Your task to perform on an android device: refresh tabs in the chrome app Image 0: 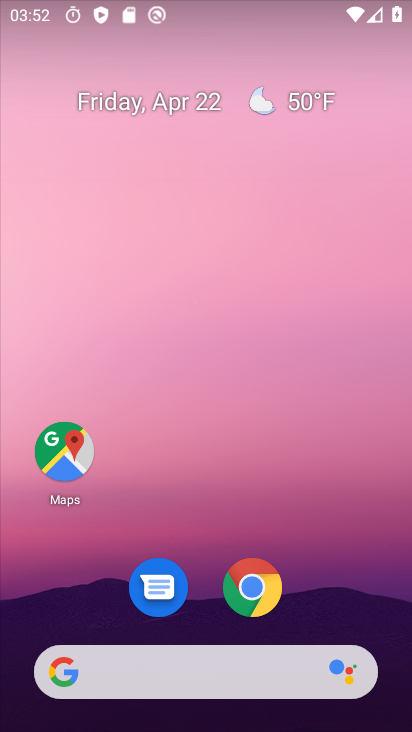
Step 0: click (259, 593)
Your task to perform on an android device: refresh tabs in the chrome app Image 1: 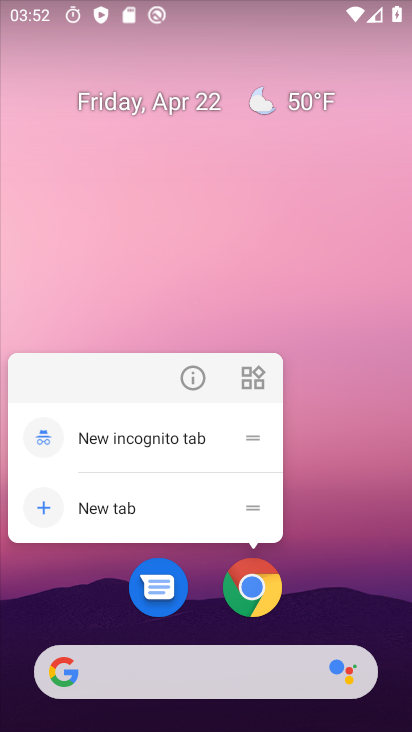
Step 1: click (253, 590)
Your task to perform on an android device: refresh tabs in the chrome app Image 2: 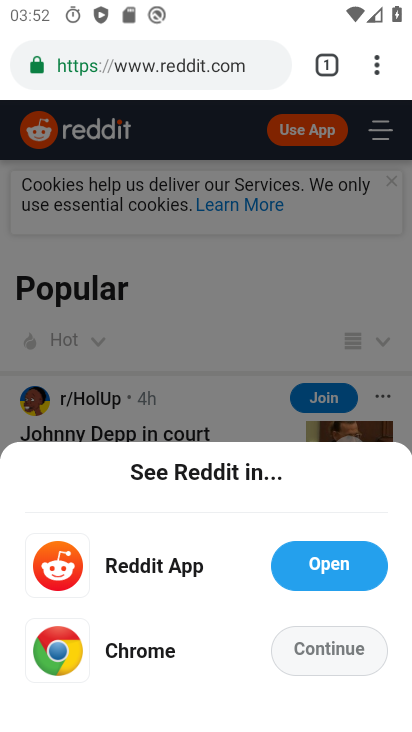
Step 2: click (378, 68)
Your task to perform on an android device: refresh tabs in the chrome app Image 3: 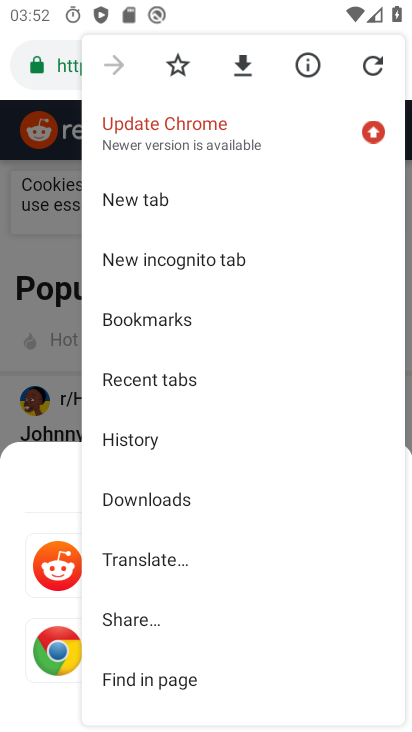
Step 3: click (378, 67)
Your task to perform on an android device: refresh tabs in the chrome app Image 4: 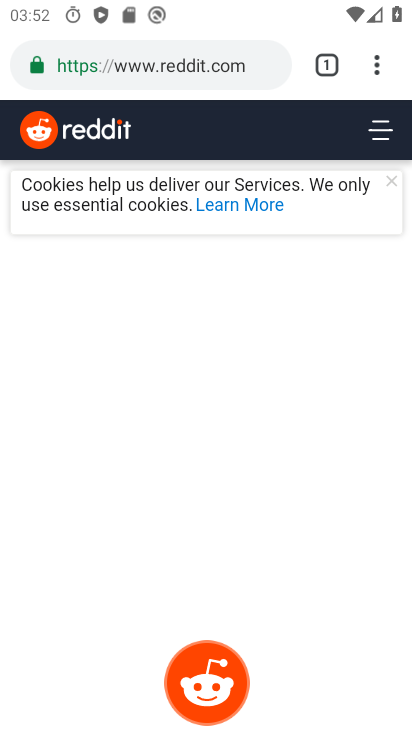
Step 4: task complete